Your task to perform on an android device: Search for Mexican restaurants on Maps Image 0: 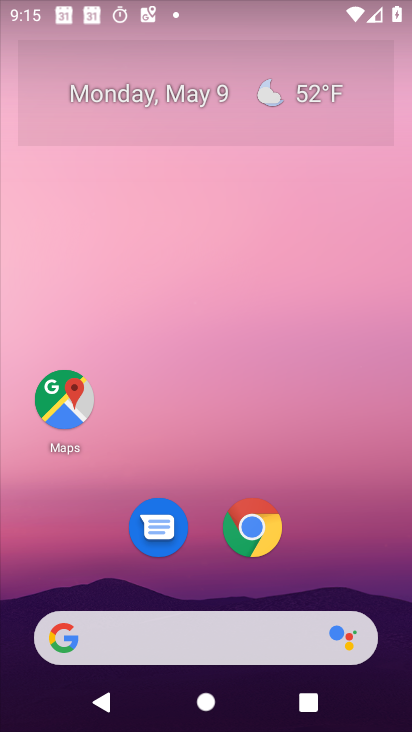
Step 0: drag from (363, 535) to (353, 158)
Your task to perform on an android device: Search for Mexican restaurants on Maps Image 1: 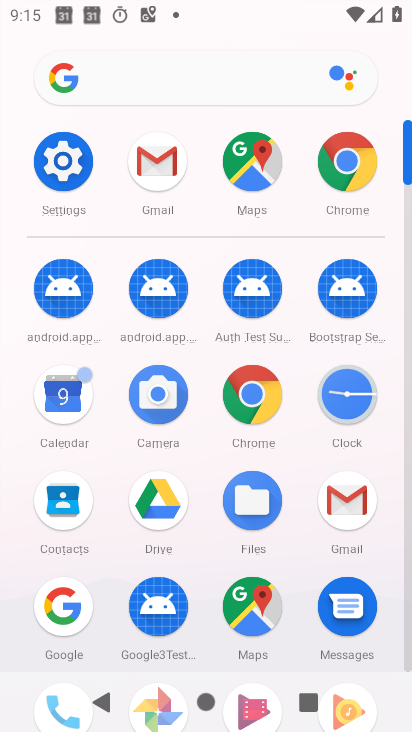
Step 1: click (249, 603)
Your task to perform on an android device: Search for Mexican restaurants on Maps Image 2: 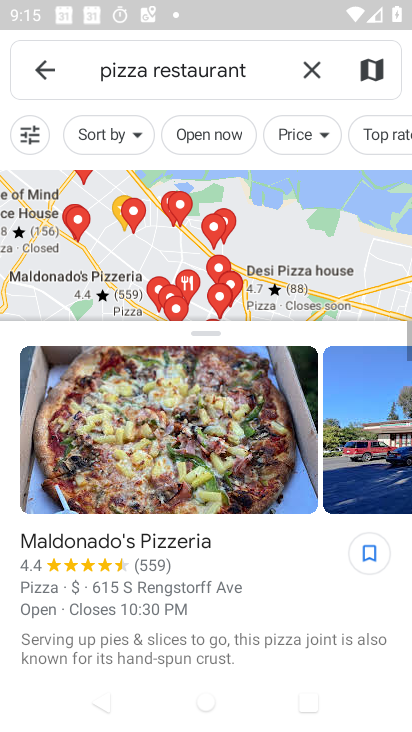
Step 2: click (314, 65)
Your task to perform on an android device: Search for Mexican restaurants on Maps Image 3: 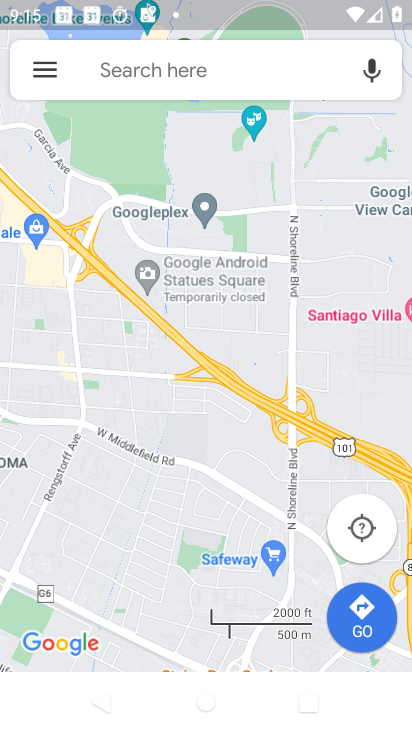
Step 3: click (240, 62)
Your task to perform on an android device: Search for Mexican restaurants on Maps Image 4: 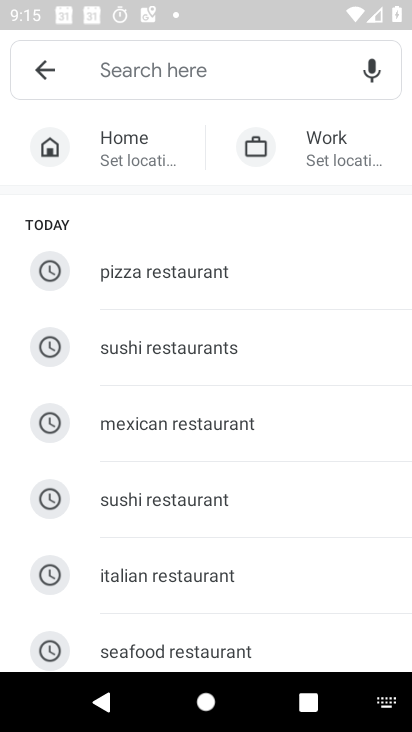
Step 4: click (160, 414)
Your task to perform on an android device: Search for Mexican restaurants on Maps Image 5: 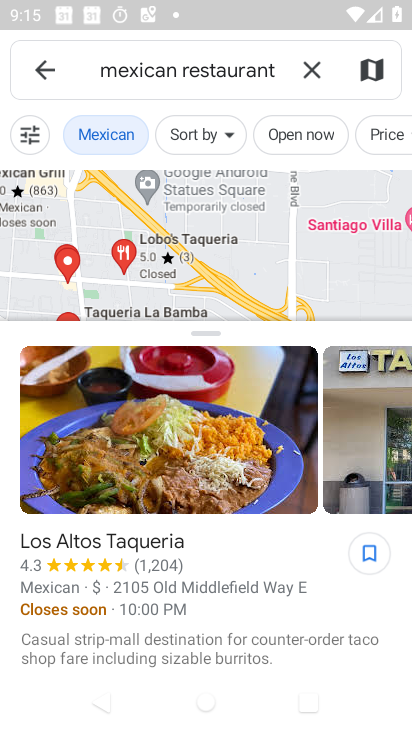
Step 5: task complete